Your task to perform on an android device: turn off sleep mode Image 0: 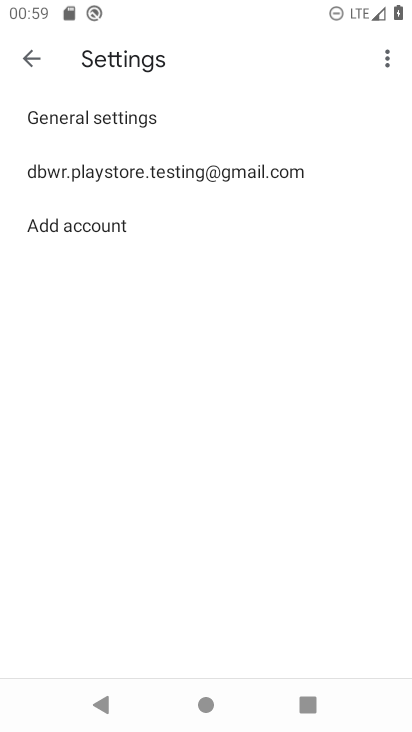
Step 0: task impossible